Your task to perform on an android device: empty trash in the gmail app Image 0: 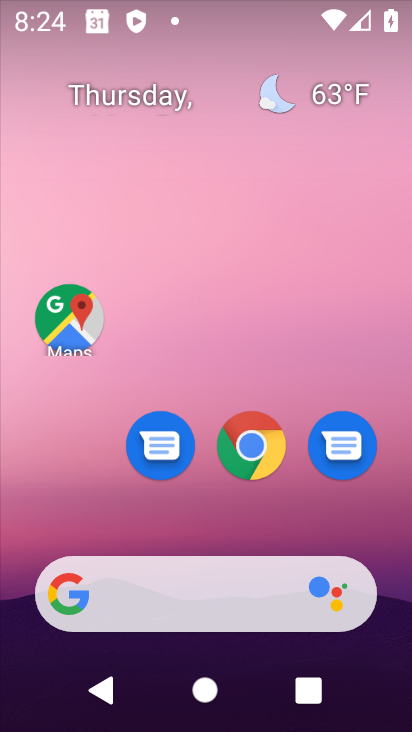
Step 0: drag from (201, 530) to (183, 181)
Your task to perform on an android device: empty trash in the gmail app Image 1: 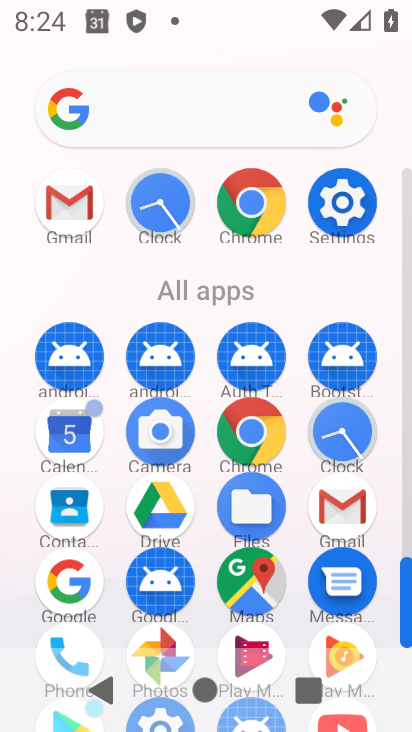
Step 1: click (329, 502)
Your task to perform on an android device: empty trash in the gmail app Image 2: 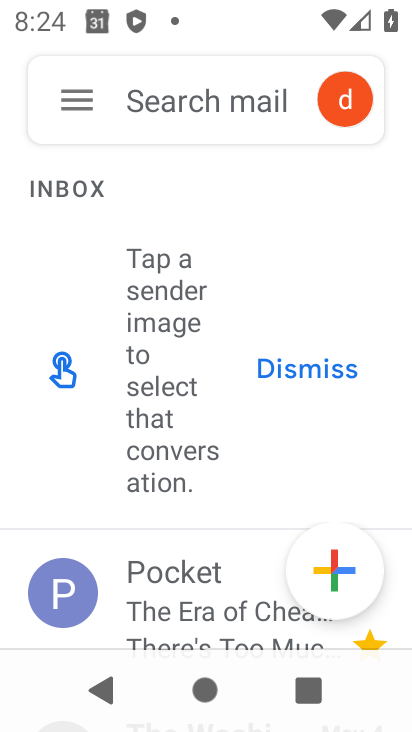
Step 2: click (71, 103)
Your task to perform on an android device: empty trash in the gmail app Image 3: 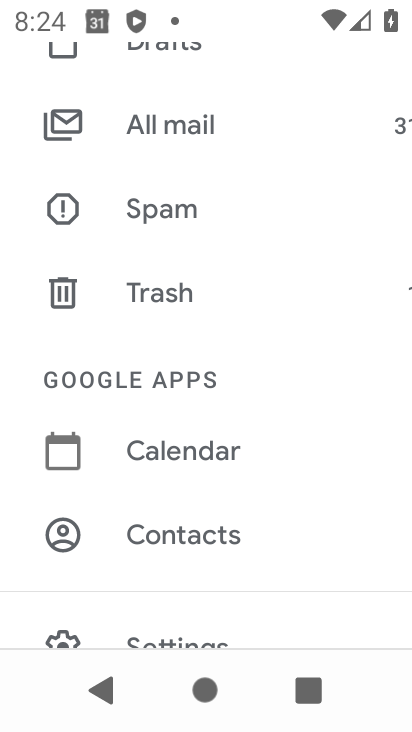
Step 3: click (175, 289)
Your task to perform on an android device: empty trash in the gmail app Image 4: 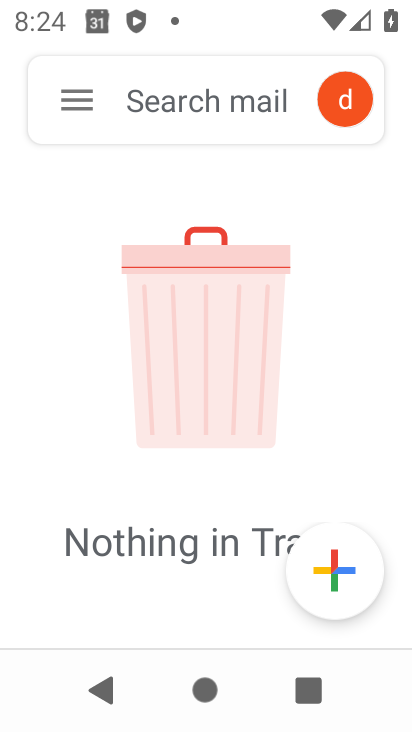
Step 4: task complete